Your task to perform on an android device: What's the weather? Image 0: 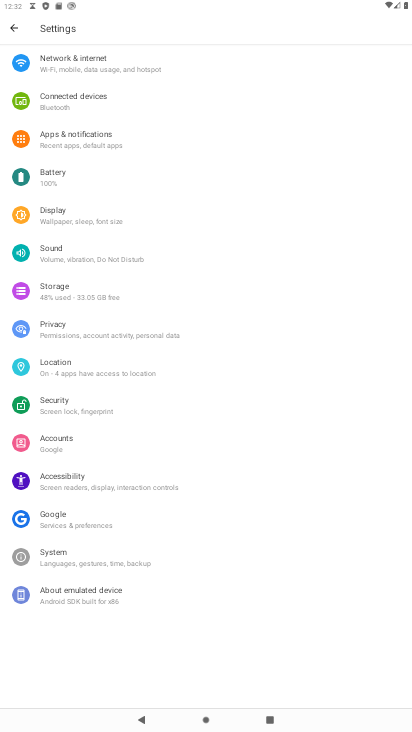
Step 0: press home button
Your task to perform on an android device: What's the weather? Image 1: 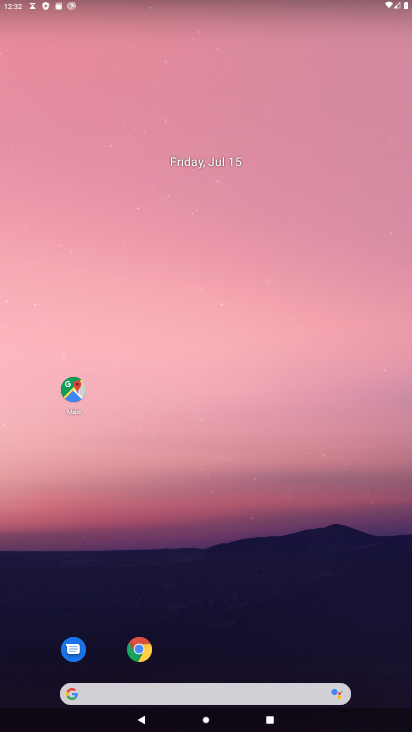
Step 1: drag from (9, 287) to (407, 281)
Your task to perform on an android device: What's the weather? Image 2: 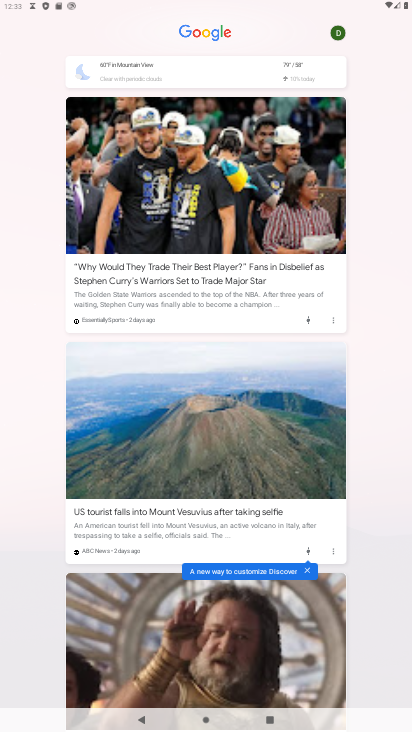
Step 2: click (229, 76)
Your task to perform on an android device: What's the weather? Image 3: 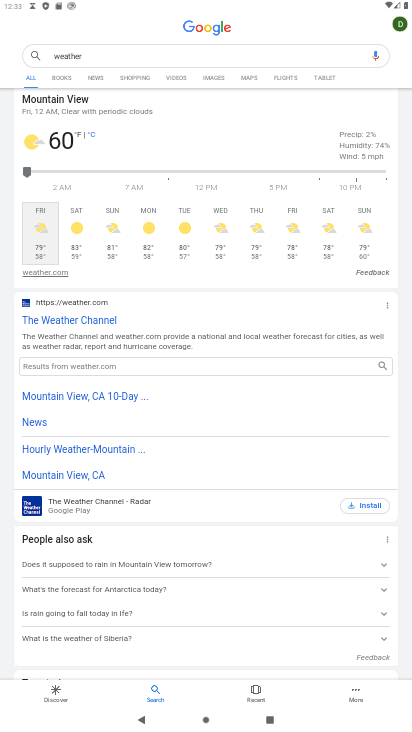
Step 3: task complete